Your task to perform on an android device: snooze an email in the gmail app Image 0: 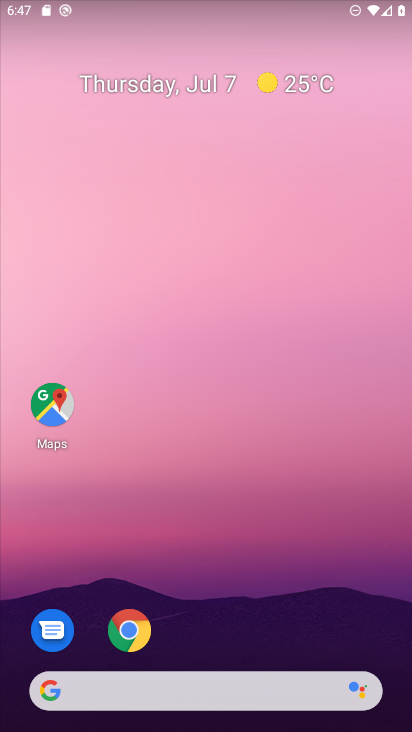
Step 0: drag from (242, 543) to (198, 207)
Your task to perform on an android device: snooze an email in the gmail app Image 1: 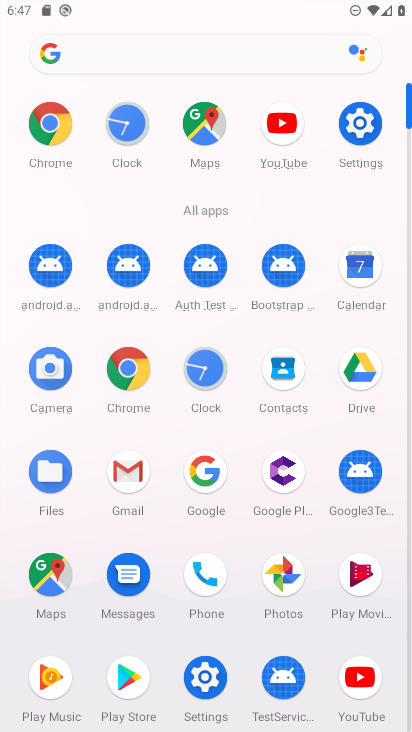
Step 1: click (125, 475)
Your task to perform on an android device: snooze an email in the gmail app Image 2: 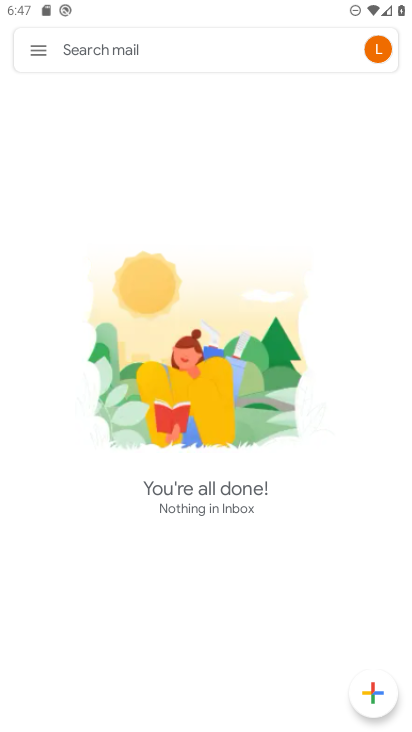
Step 2: click (33, 50)
Your task to perform on an android device: snooze an email in the gmail app Image 3: 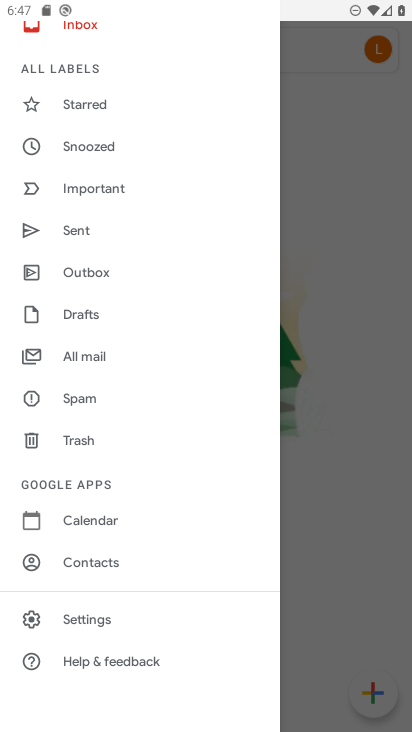
Step 3: click (95, 141)
Your task to perform on an android device: snooze an email in the gmail app Image 4: 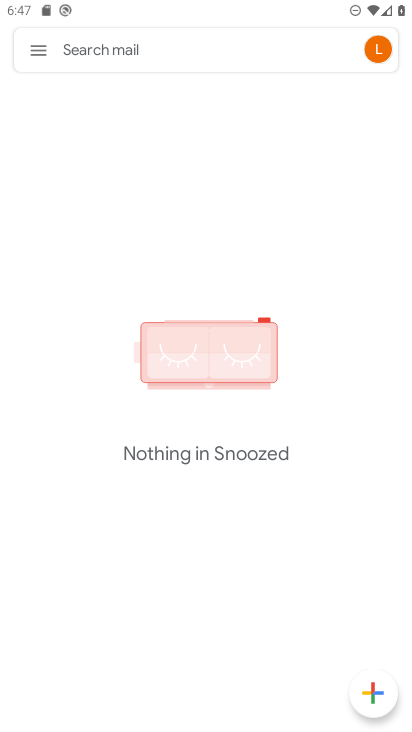
Step 4: task complete